Your task to perform on an android device: toggle show notifications on the lock screen Image 0: 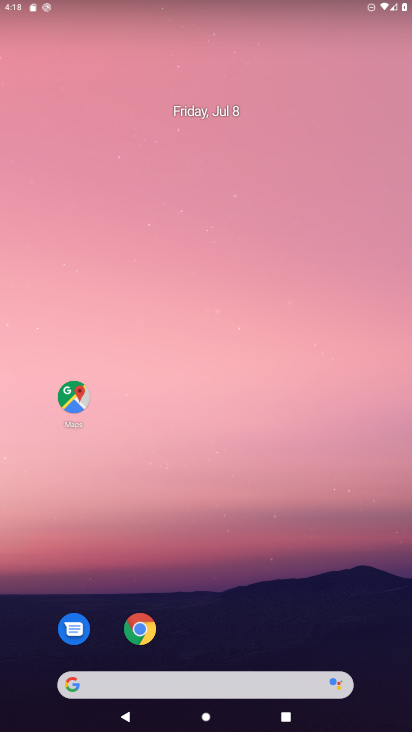
Step 0: drag from (324, 607) to (61, 123)
Your task to perform on an android device: toggle show notifications on the lock screen Image 1: 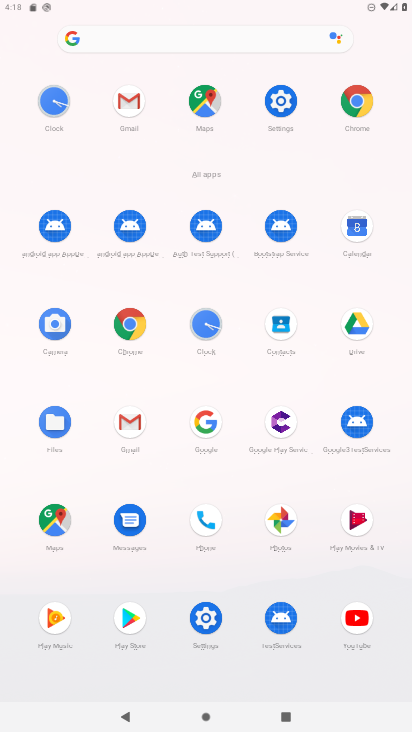
Step 1: click (274, 126)
Your task to perform on an android device: toggle show notifications on the lock screen Image 2: 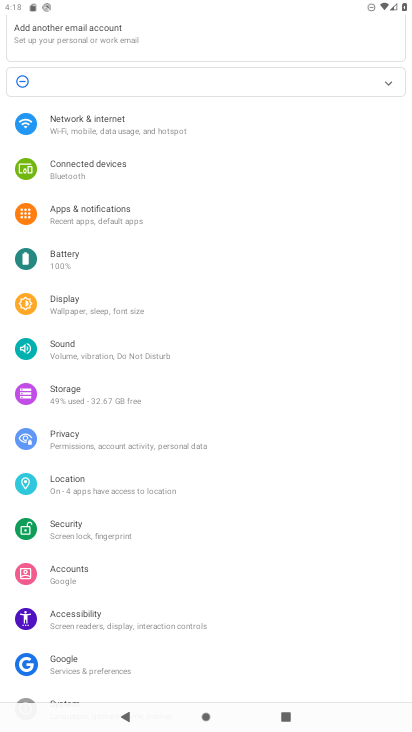
Step 2: click (154, 208)
Your task to perform on an android device: toggle show notifications on the lock screen Image 3: 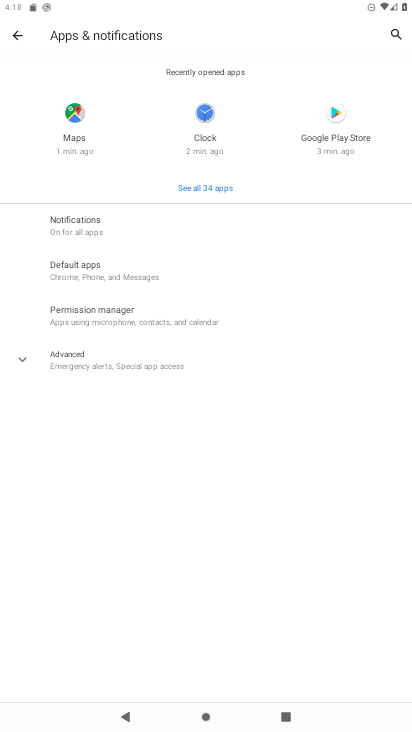
Step 3: click (87, 354)
Your task to perform on an android device: toggle show notifications on the lock screen Image 4: 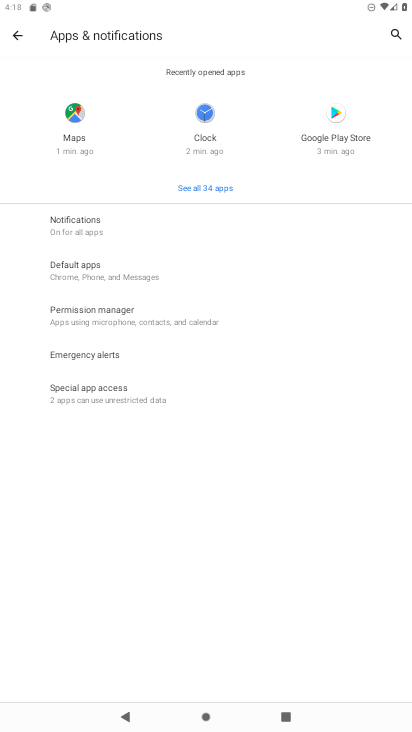
Step 4: click (140, 236)
Your task to perform on an android device: toggle show notifications on the lock screen Image 5: 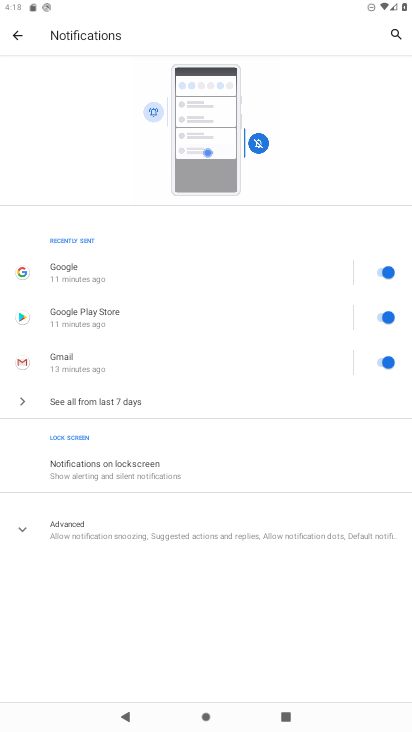
Step 5: click (209, 484)
Your task to perform on an android device: toggle show notifications on the lock screen Image 6: 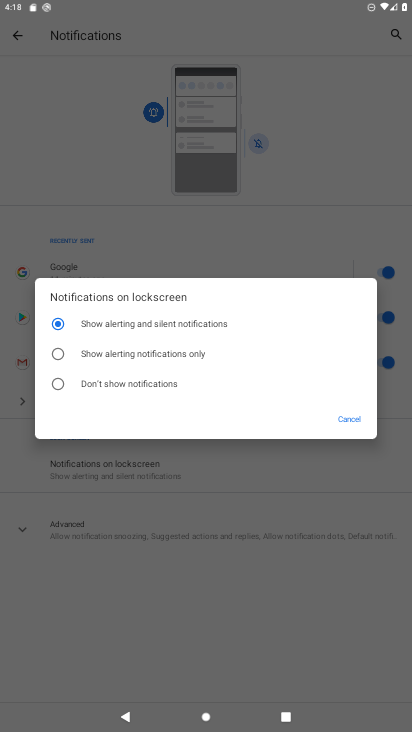
Step 6: click (205, 355)
Your task to perform on an android device: toggle show notifications on the lock screen Image 7: 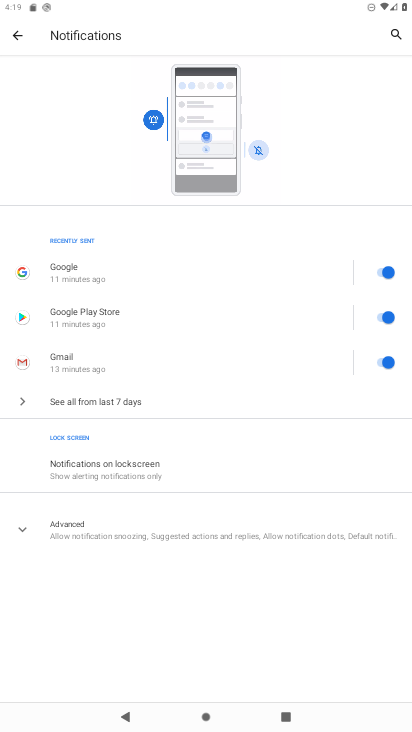
Step 7: task complete